Your task to perform on an android device: Go to settings Image 0: 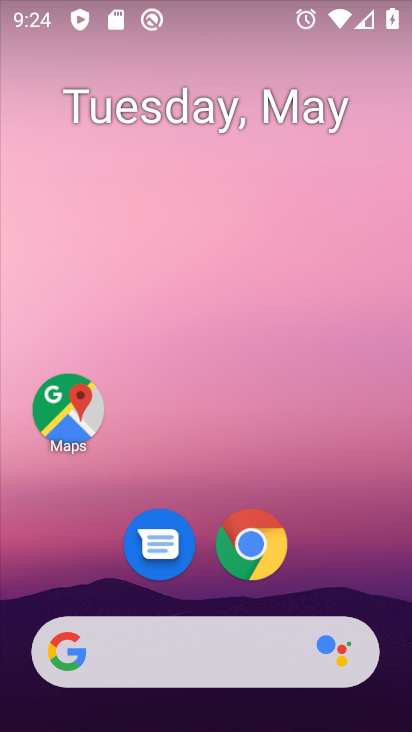
Step 0: drag from (349, 587) to (346, 252)
Your task to perform on an android device: Go to settings Image 1: 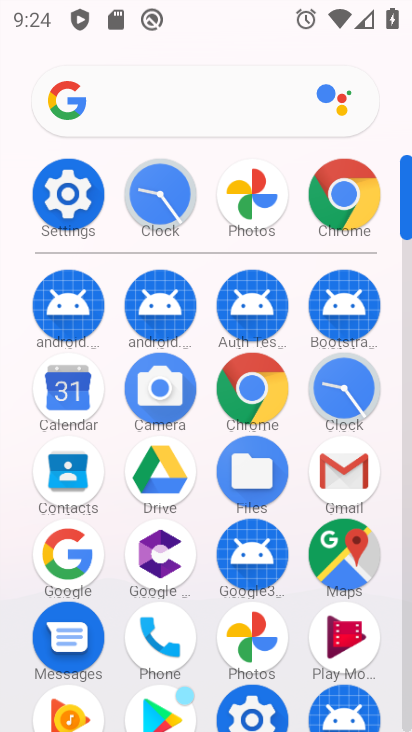
Step 1: click (55, 207)
Your task to perform on an android device: Go to settings Image 2: 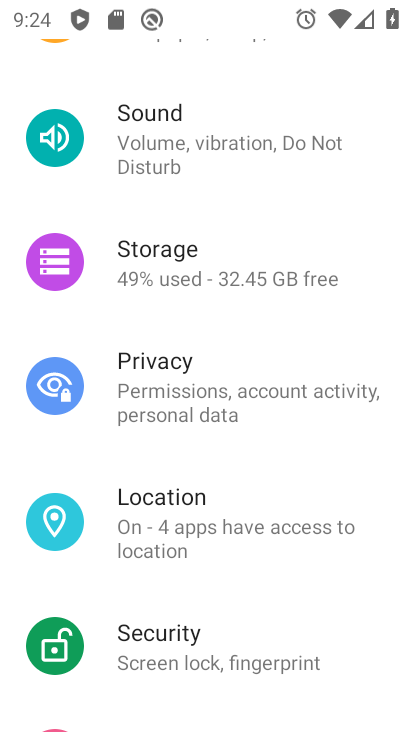
Step 2: task complete